Your task to perform on an android device: Open wifi settings Image 0: 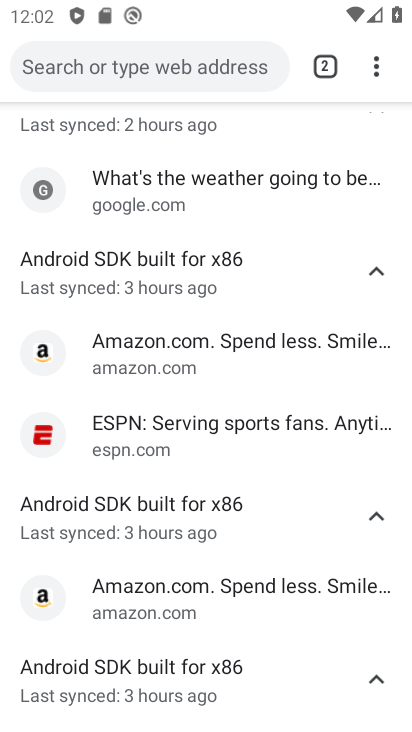
Step 0: press home button
Your task to perform on an android device: Open wifi settings Image 1: 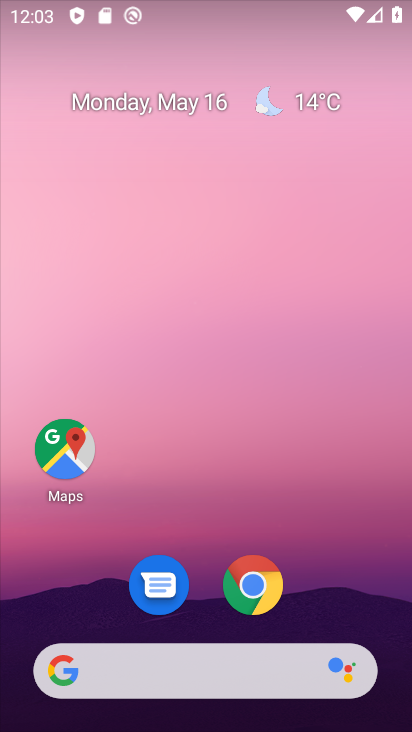
Step 1: drag from (297, 479) to (306, 60)
Your task to perform on an android device: Open wifi settings Image 2: 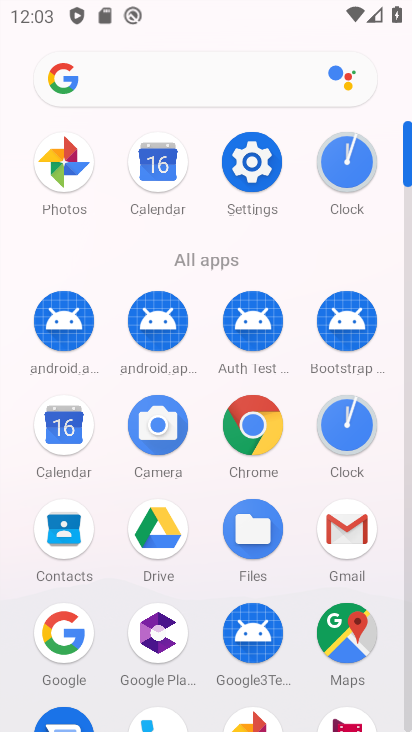
Step 2: click (268, 152)
Your task to perform on an android device: Open wifi settings Image 3: 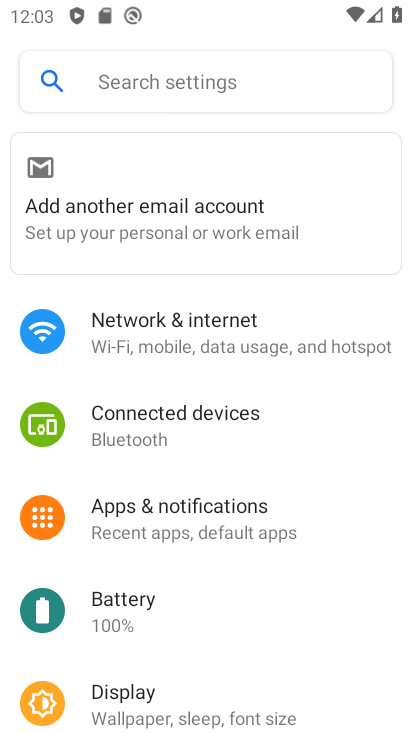
Step 3: click (216, 331)
Your task to perform on an android device: Open wifi settings Image 4: 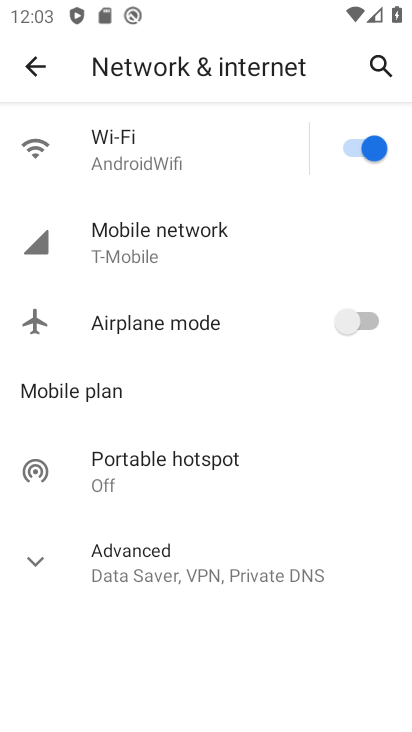
Step 4: click (154, 141)
Your task to perform on an android device: Open wifi settings Image 5: 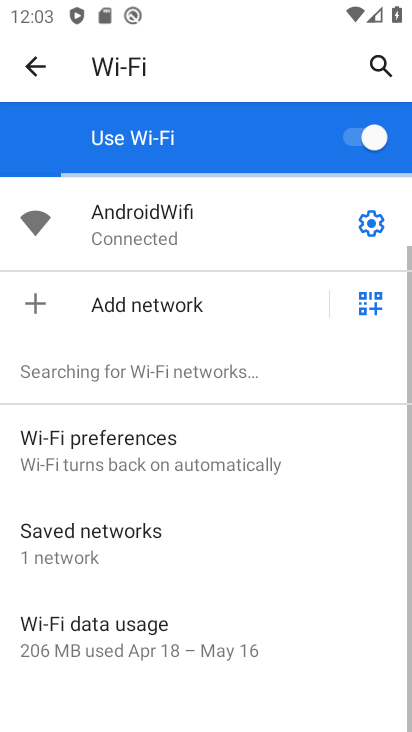
Step 5: task complete